Your task to perform on an android device: Open Maps and search for coffee Image 0: 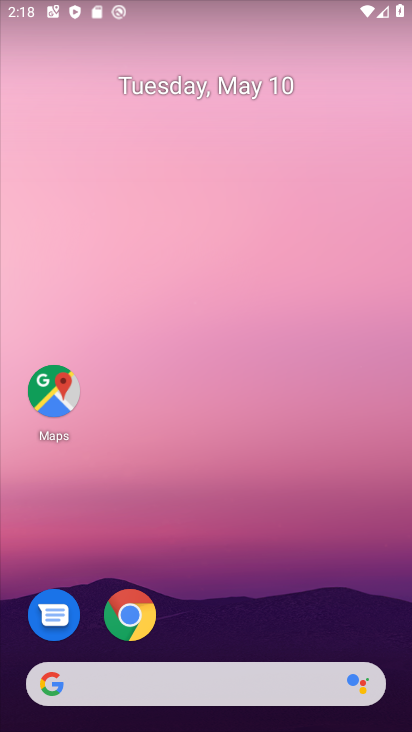
Step 0: click (46, 375)
Your task to perform on an android device: Open Maps and search for coffee Image 1: 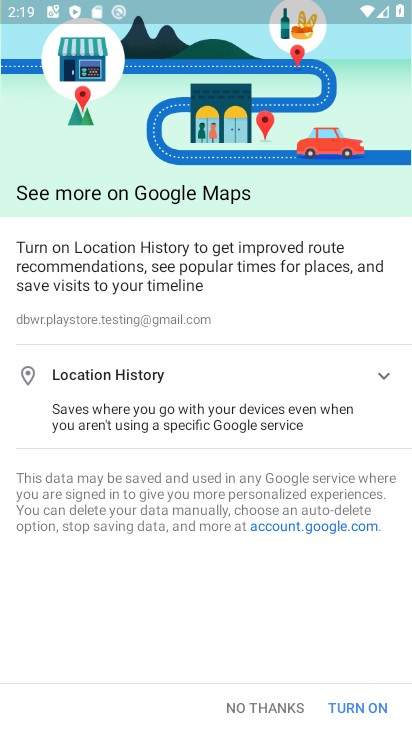
Step 1: click (244, 698)
Your task to perform on an android device: Open Maps and search for coffee Image 2: 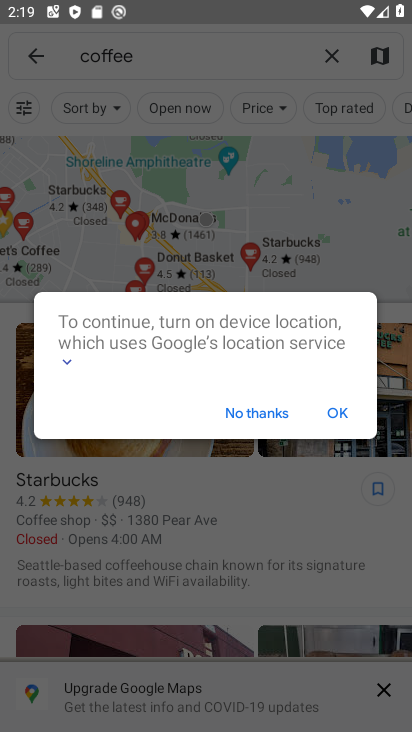
Step 2: click (263, 403)
Your task to perform on an android device: Open Maps and search for coffee Image 3: 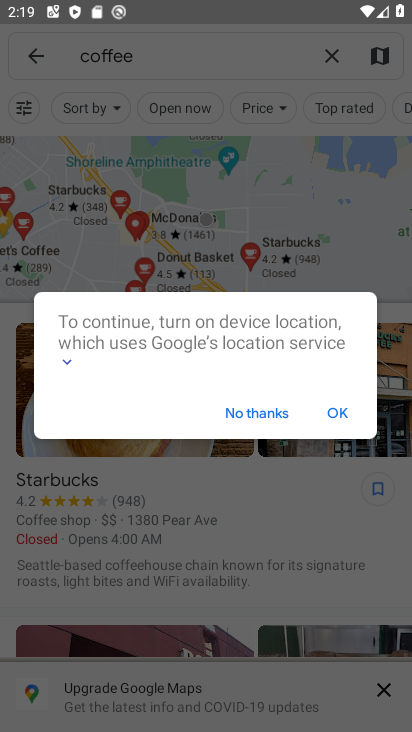
Step 3: click (263, 411)
Your task to perform on an android device: Open Maps and search for coffee Image 4: 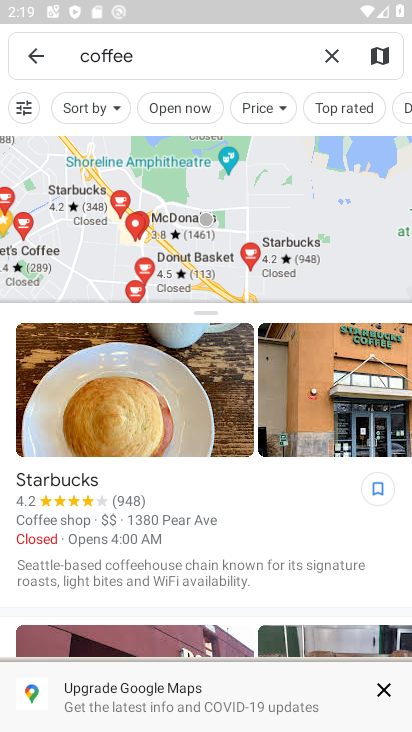
Step 4: task complete